Your task to perform on an android device: Do I have any events tomorrow? Image 0: 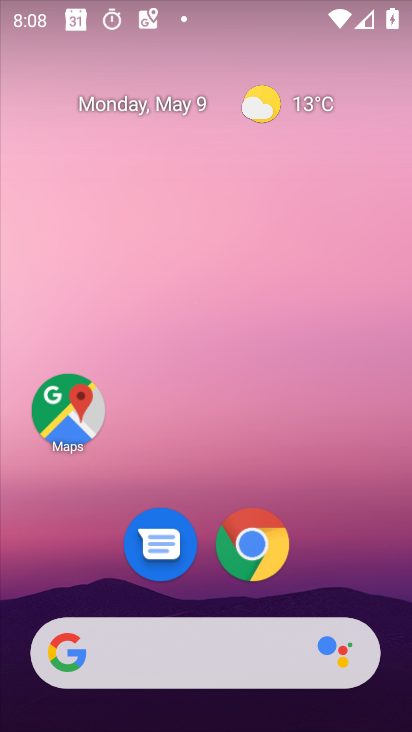
Step 0: drag from (380, 569) to (361, 21)
Your task to perform on an android device: Do I have any events tomorrow? Image 1: 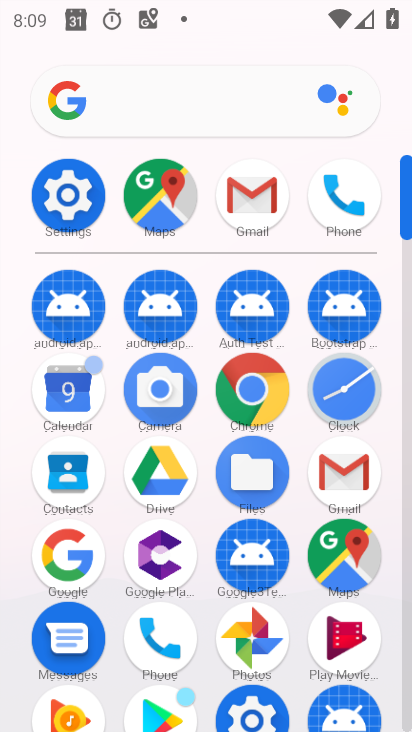
Step 1: click (75, 402)
Your task to perform on an android device: Do I have any events tomorrow? Image 2: 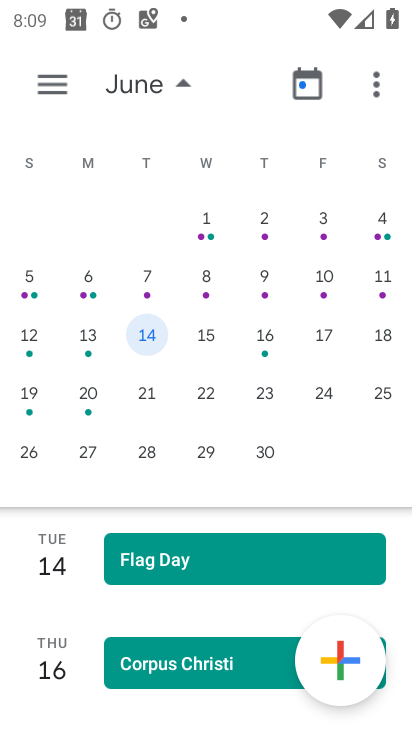
Step 2: click (203, 341)
Your task to perform on an android device: Do I have any events tomorrow? Image 3: 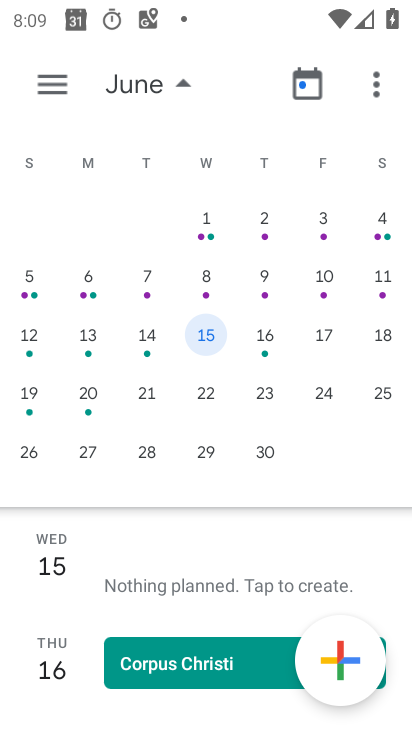
Step 3: task complete